Your task to perform on an android device: turn off wifi Image 0: 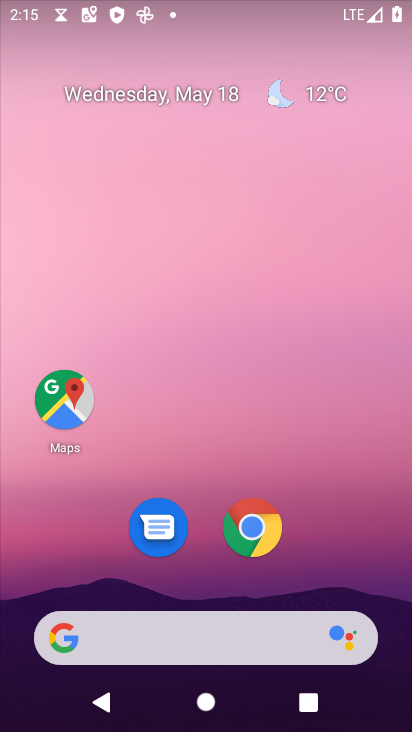
Step 0: drag from (341, 530) to (217, 26)
Your task to perform on an android device: turn off wifi Image 1: 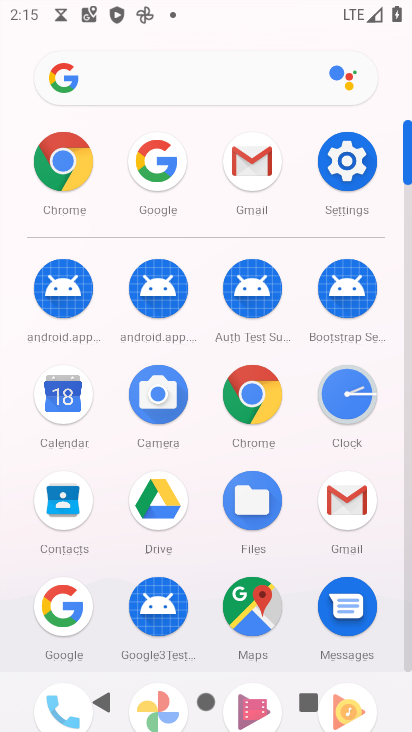
Step 1: click (350, 162)
Your task to perform on an android device: turn off wifi Image 2: 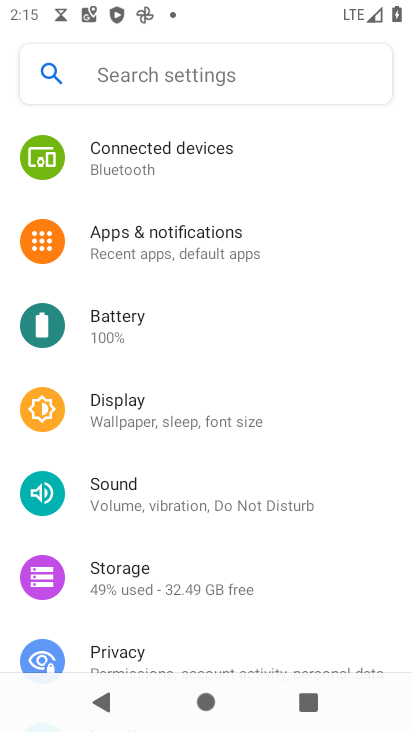
Step 2: drag from (256, 208) to (233, 550)
Your task to perform on an android device: turn off wifi Image 3: 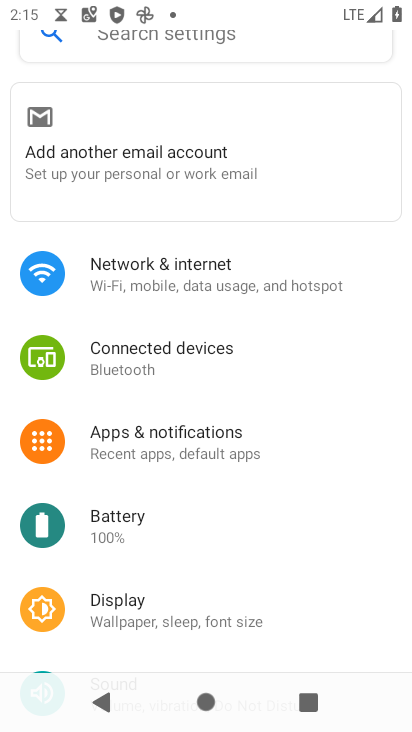
Step 3: click (233, 284)
Your task to perform on an android device: turn off wifi Image 4: 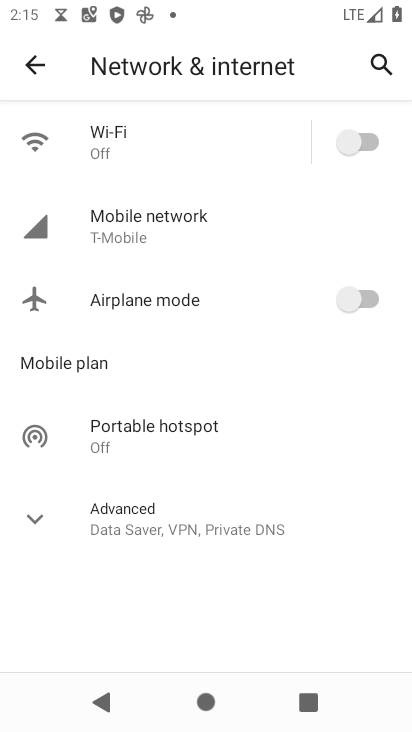
Step 4: task complete